Your task to perform on an android device: turn pop-ups on in chrome Image 0: 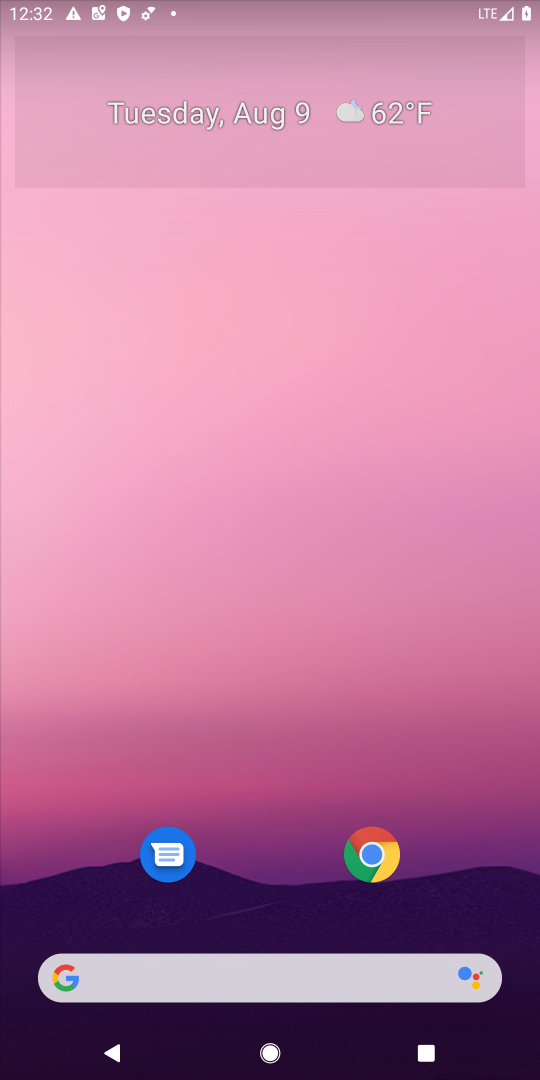
Step 0: click (381, 857)
Your task to perform on an android device: turn pop-ups on in chrome Image 1: 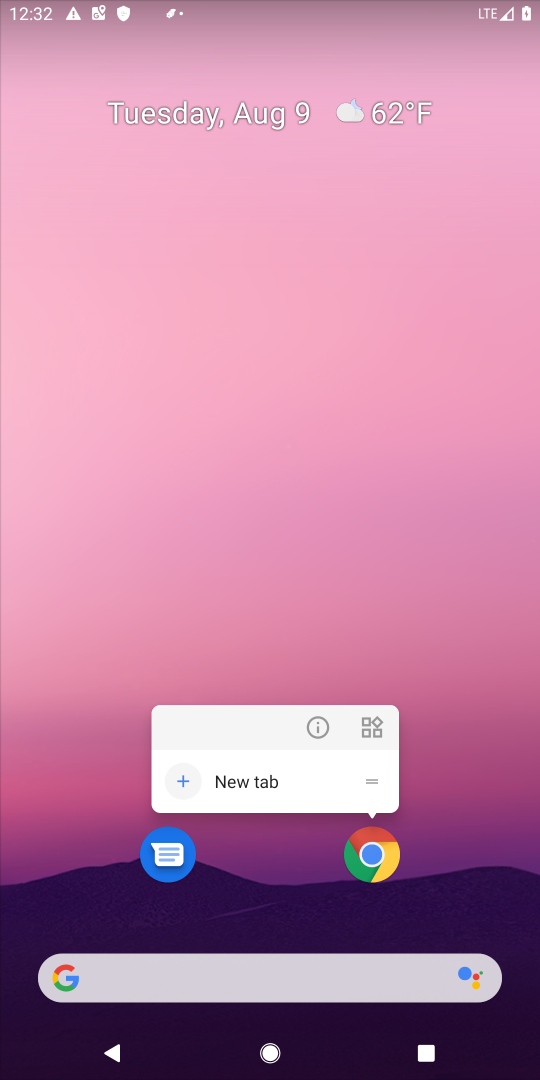
Step 1: click (393, 840)
Your task to perform on an android device: turn pop-ups on in chrome Image 2: 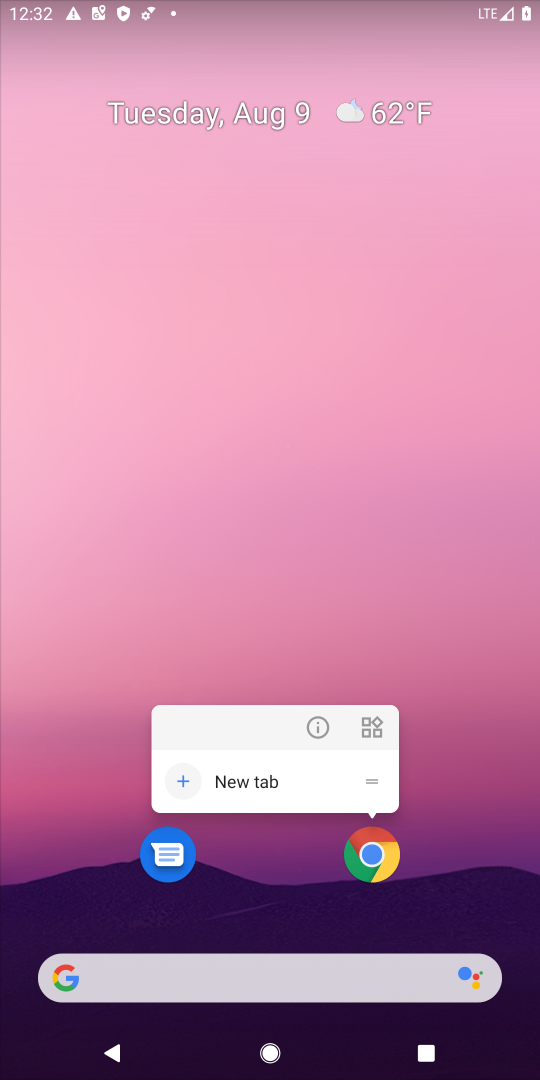
Step 2: click (371, 853)
Your task to perform on an android device: turn pop-ups on in chrome Image 3: 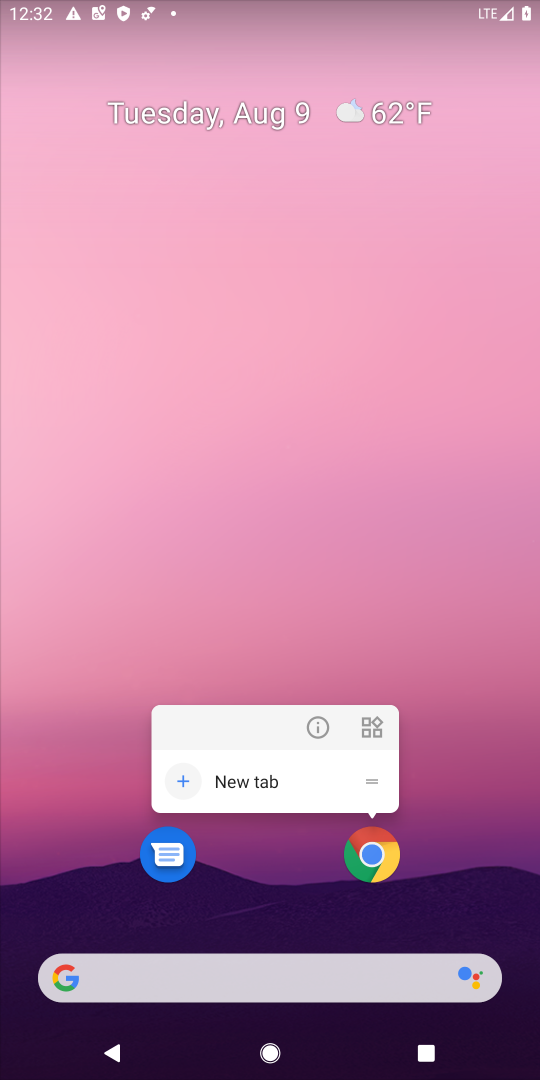
Step 3: click (371, 860)
Your task to perform on an android device: turn pop-ups on in chrome Image 4: 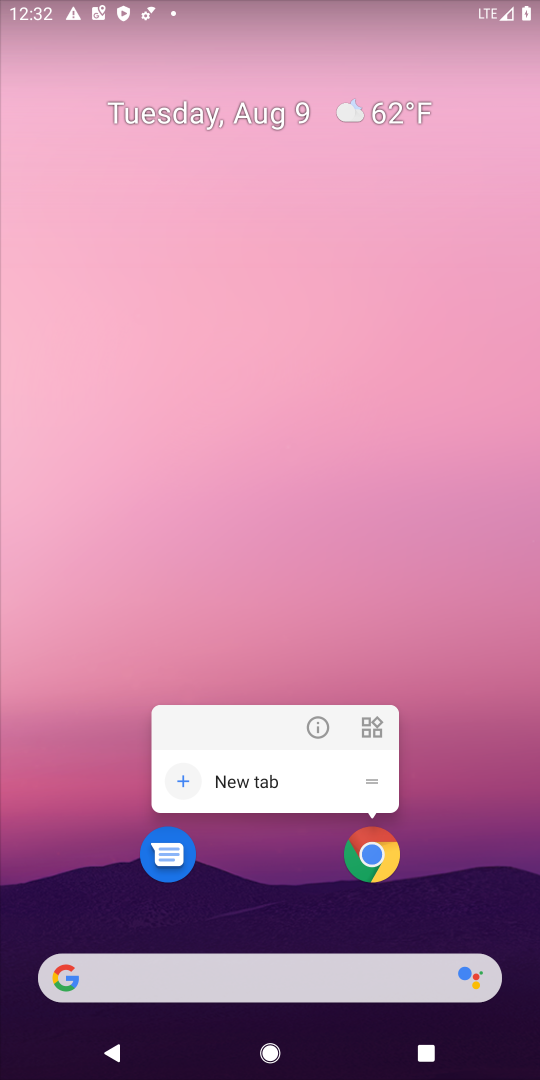
Step 4: click (371, 859)
Your task to perform on an android device: turn pop-ups on in chrome Image 5: 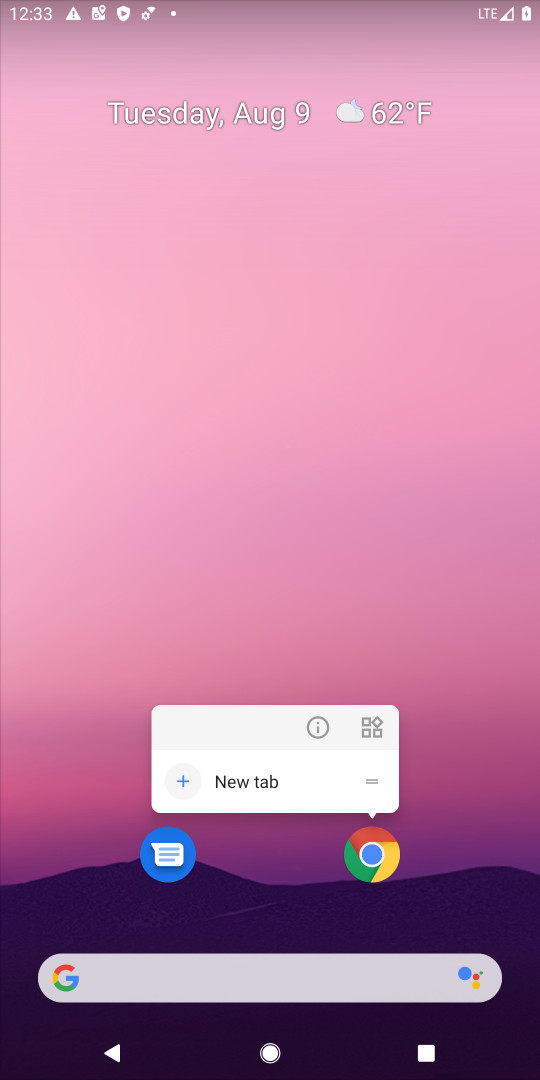
Step 5: click (372, 846)
Your task to perform on an android device: turn pop-ups on in chrome Image 6: 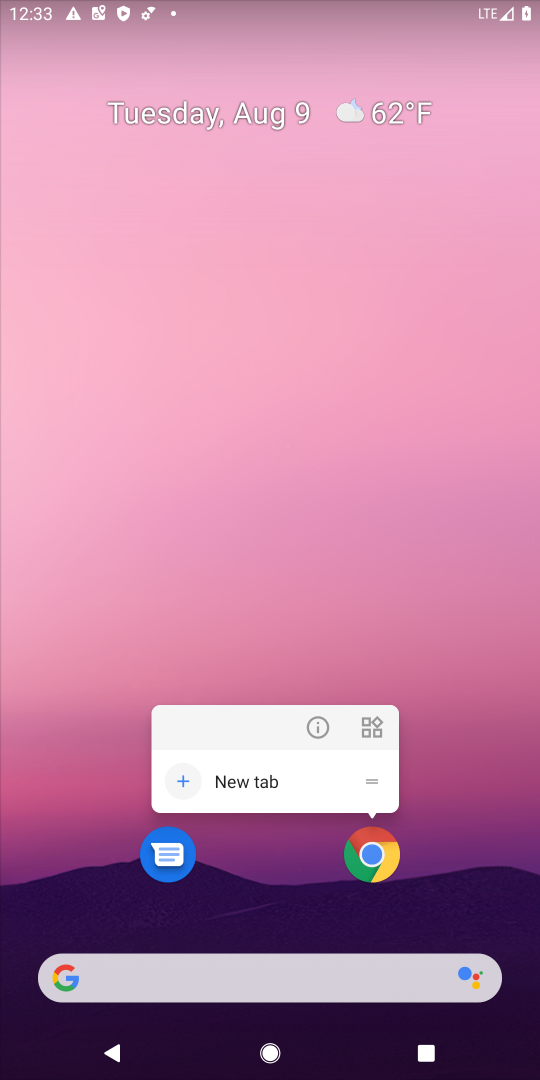
Step 6: click (371, 849)
Your task to perform on an android device: turn pop-ups on in chrome Image 7: 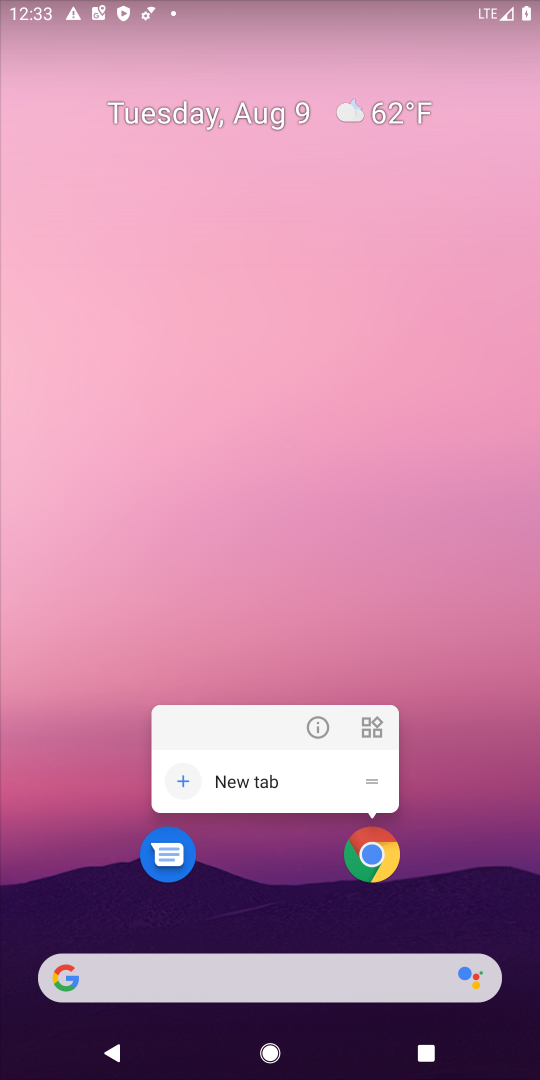
Step 7: click (369, 860)
Your task to perform on an android device: turn pop-ups on in chrome Image 8: 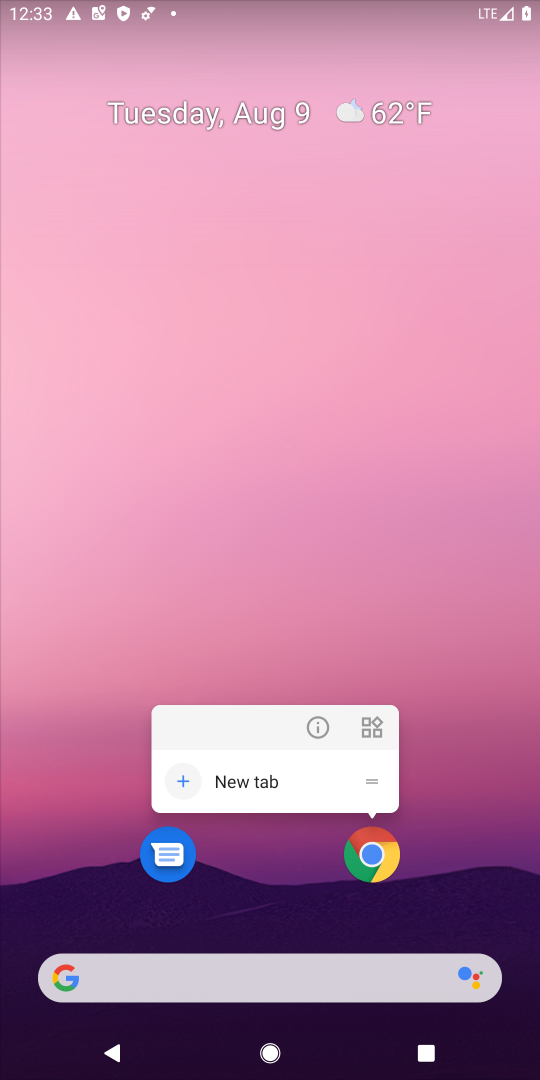
Step 8: click (376, 859)
Your task to perform on an android device: turn pop-ups on in chrome Image 9: 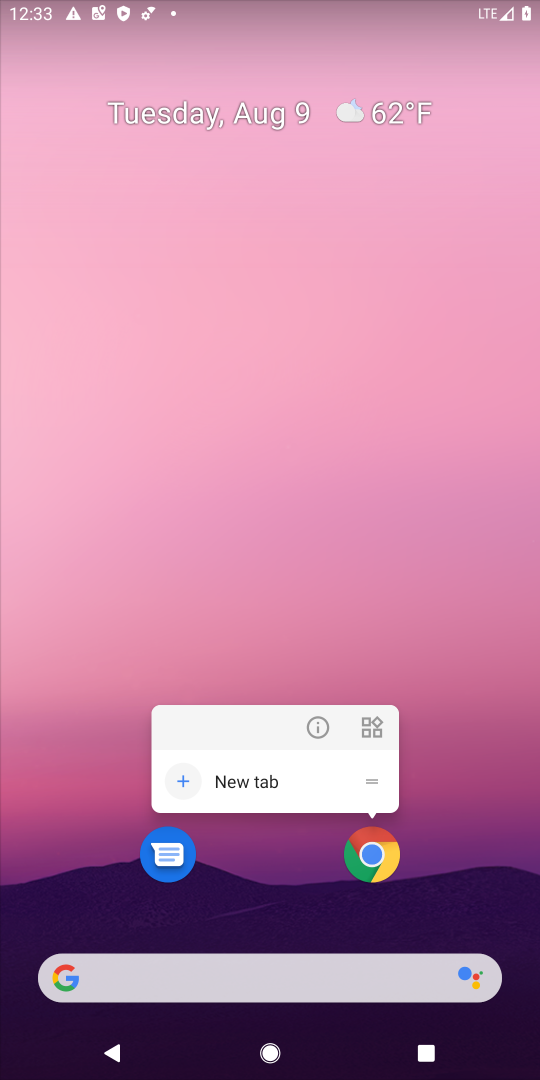
Step 9: click (393, 858)
Your task to perform on an android device: turn pop-ups on in chrome Image 10: 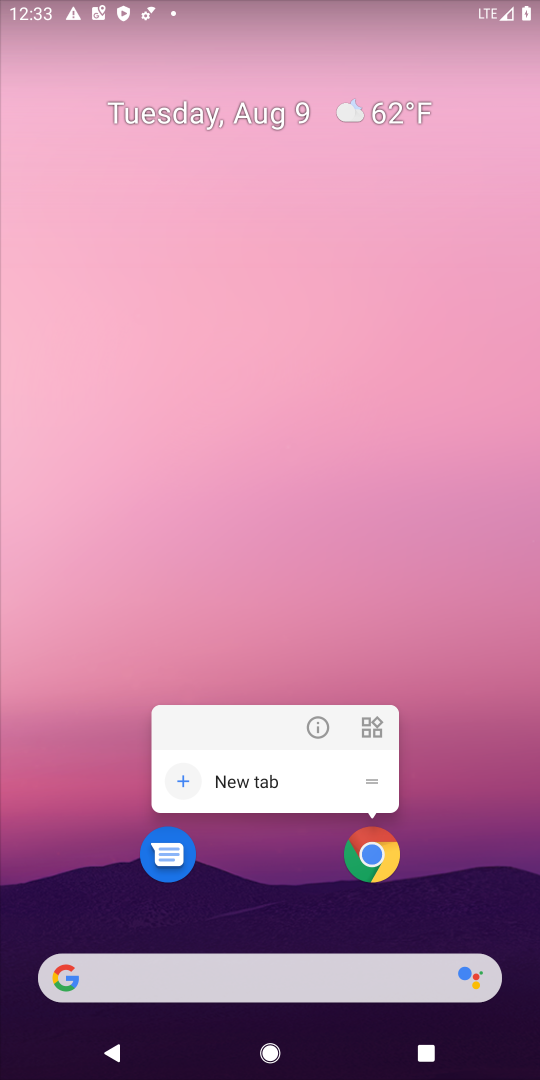
Step 10: click (368, 866)
Your task to perform on an android device: turn pop-ups on in chrome Image 11: 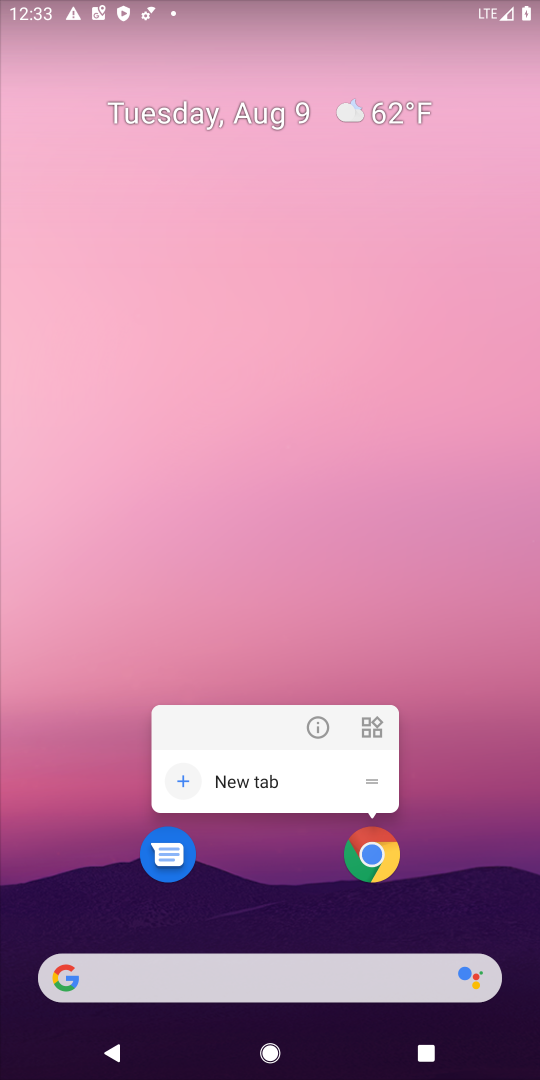
Step 11: click (375, 845)
Your task to perform on an android device: turn pop-ups on in chrome Image 12: 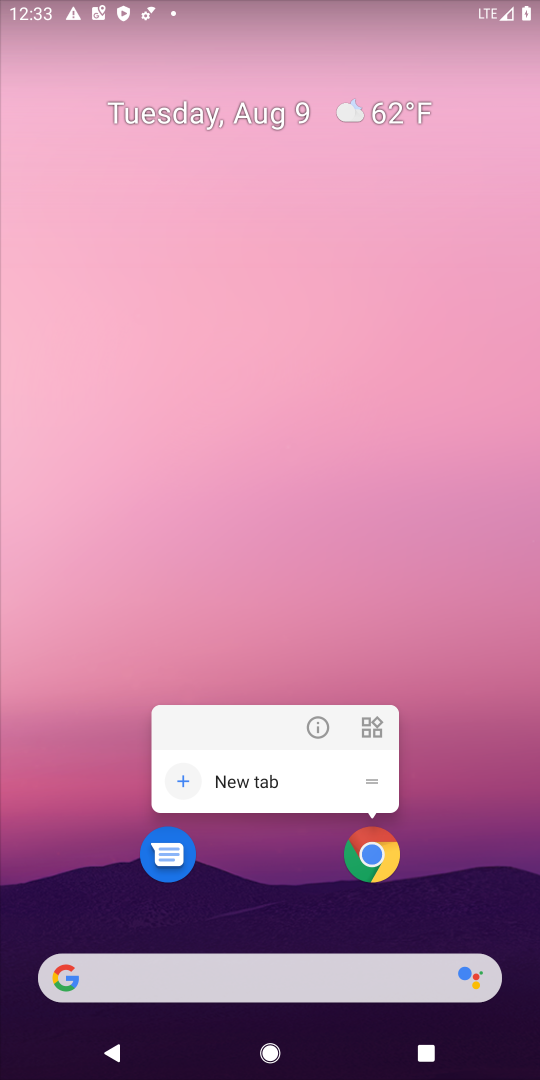
Step 12: click (376, 856)
Your task to perform on an android device: turn pop-ups on in chrome Image 13: 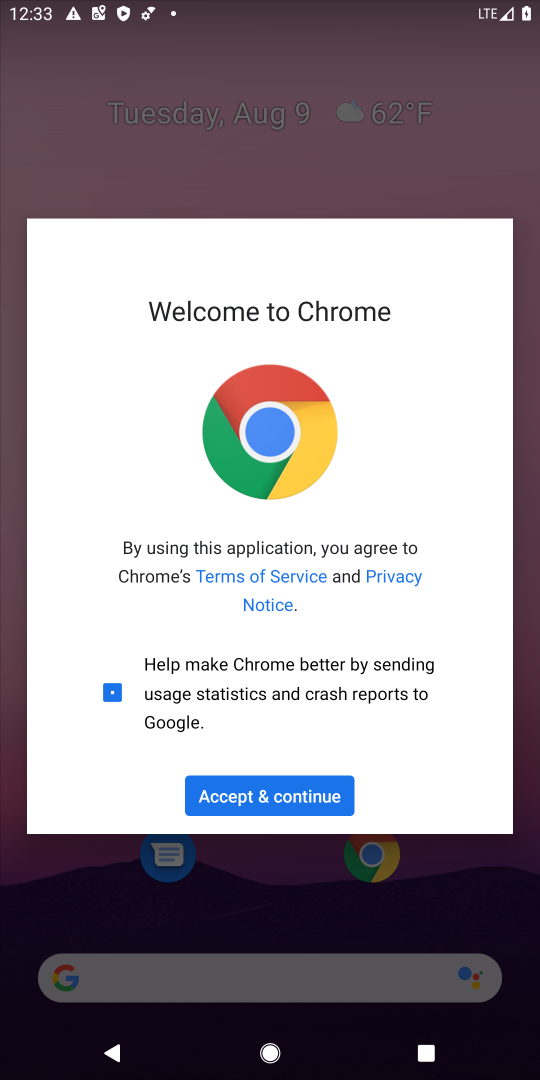
Step 13: click (328, 789)
Your task to perform on an android device: turn pop-ups on in chrome Image 14: 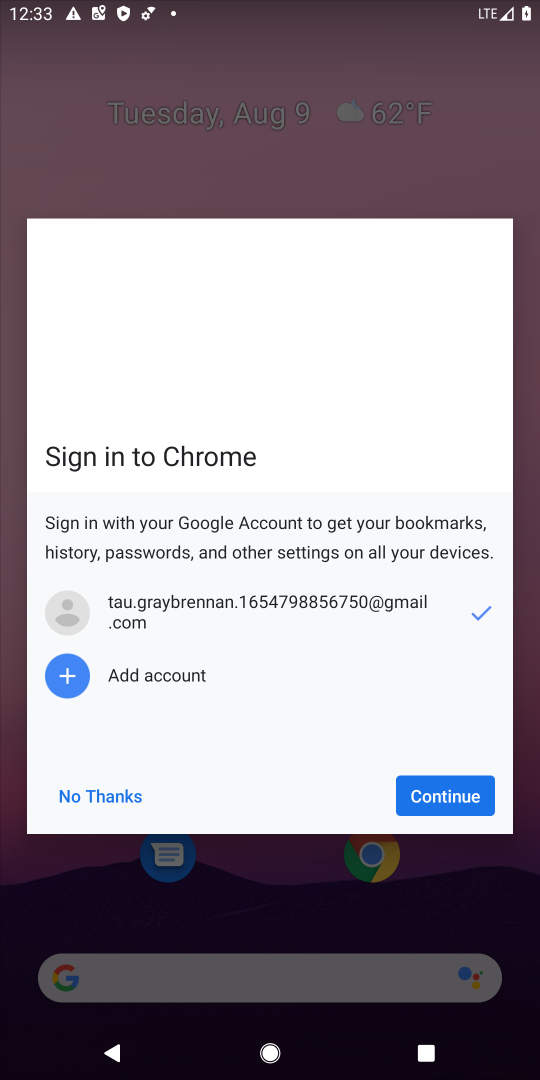
Step 14: click (424, 787)
Your task to perform on an android device: turn pop-ups on in chrome Image 15: 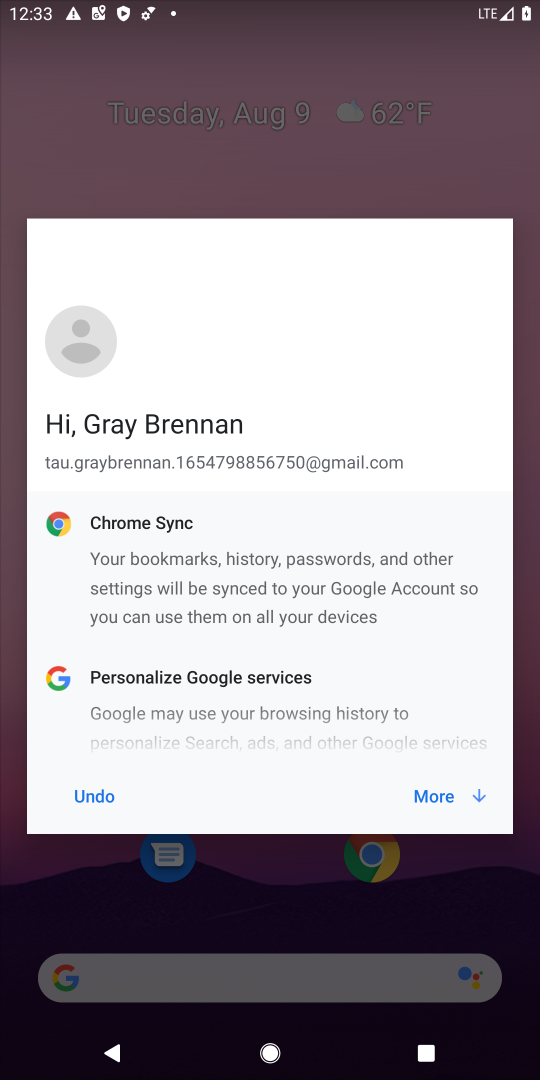
Step 15: click (444, 791)
Your task to perform on an android device: turn pop-ups on in chrome Image 16: 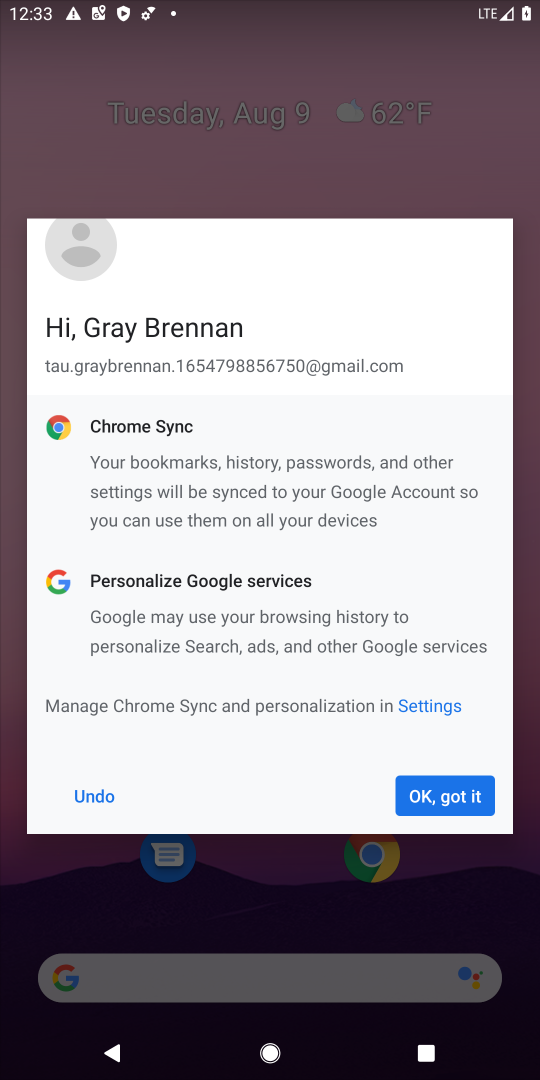
Step 16: click (444, 791)
Your task to perform on an android device: turn pop-ups on in chrome Image 17: 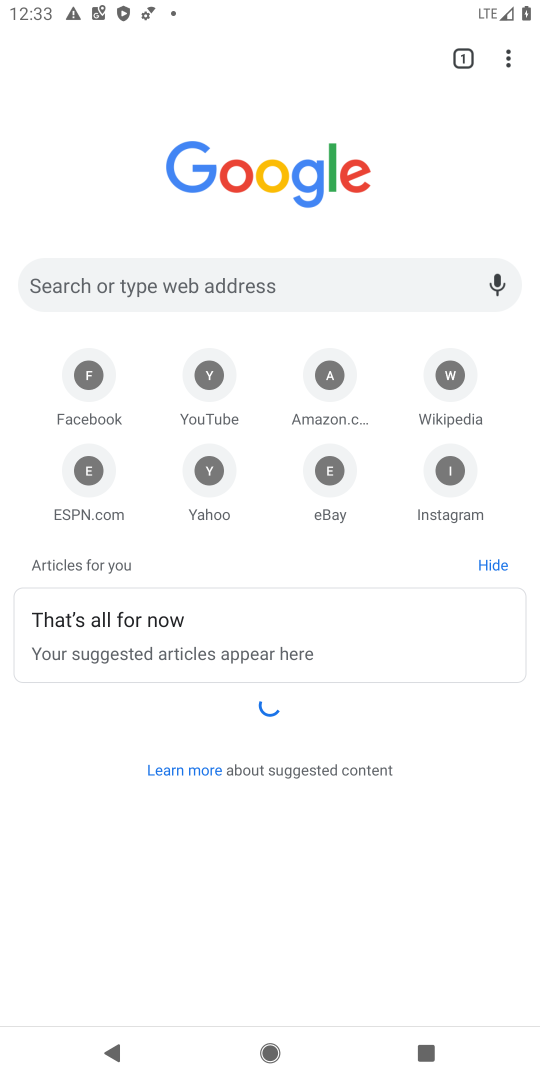
Step 17: drag from (516, 43) to (322, 493)
Your task to perform on an android device: turn pop-ups on in chrome Image 18: 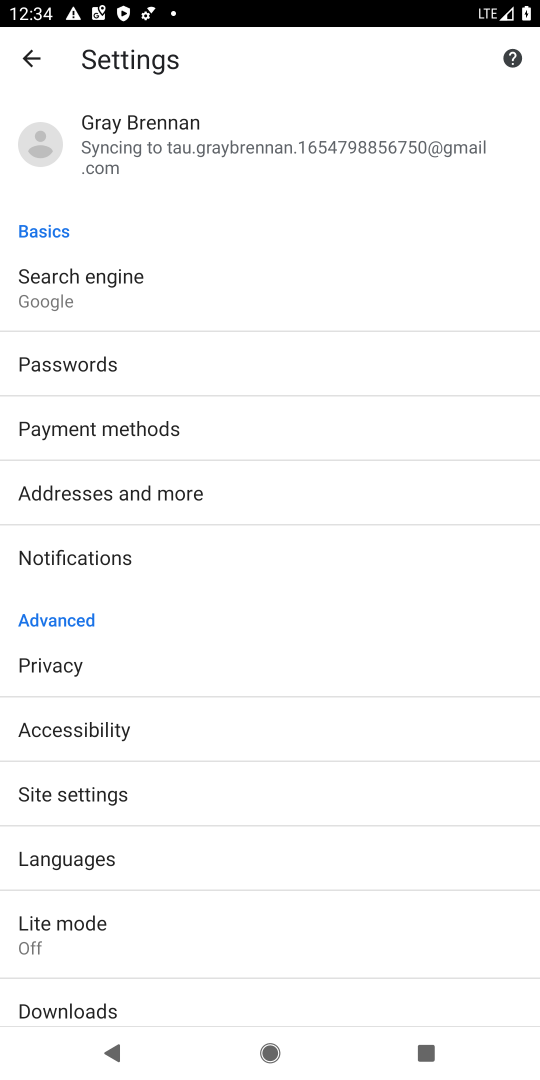
Step 18: click (72, 801)
Your task to perform on an android device: turn pop-ups on in chrome Image 19: 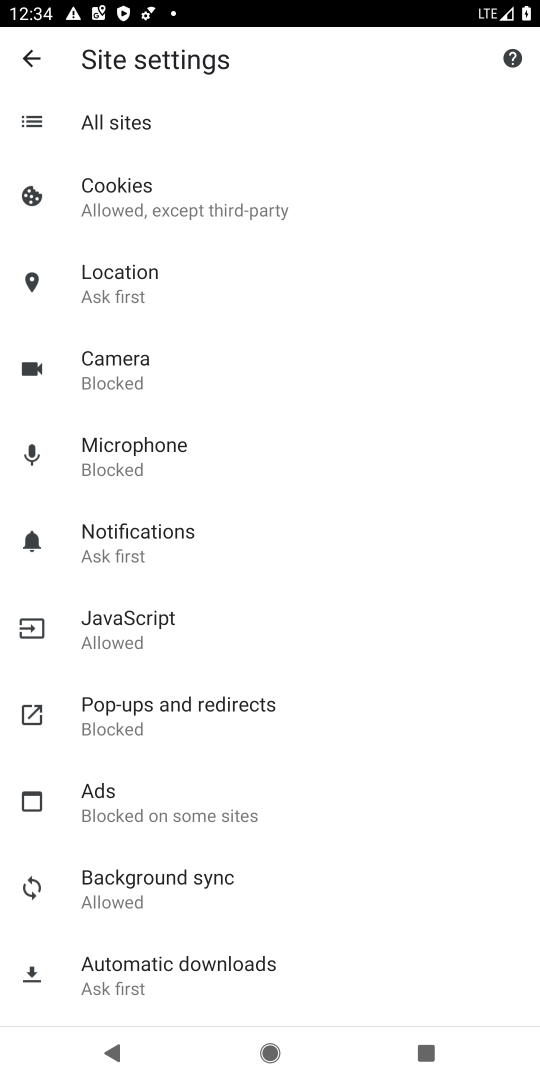
Step 19: click (140, 721)
Your task to perform on an android device: turn pop-ups on in chrome Image 20: 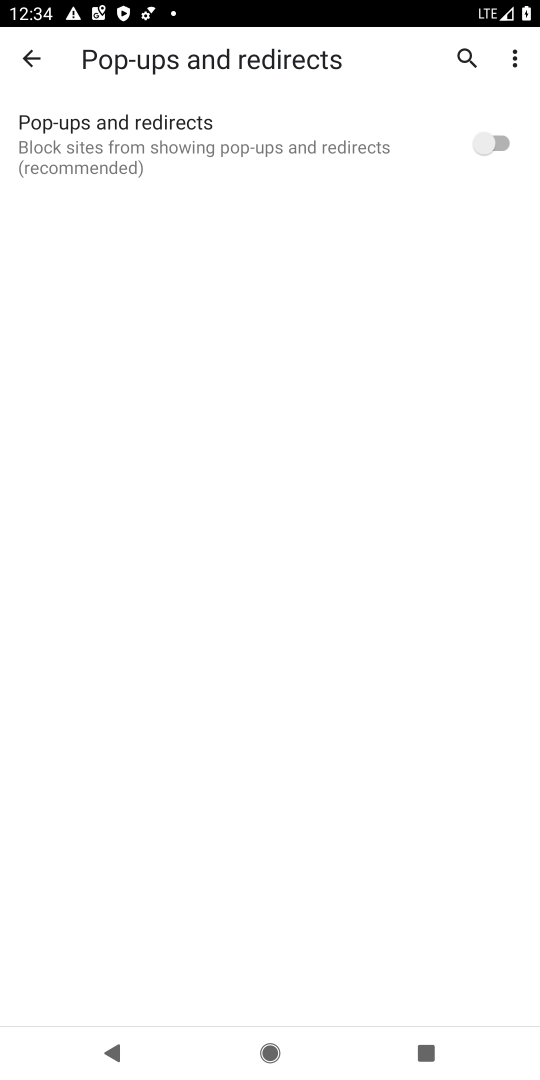
Step 20: click (483, 143)
Your task to perform on an android device: turn pop-ups on in chrome Image 21: 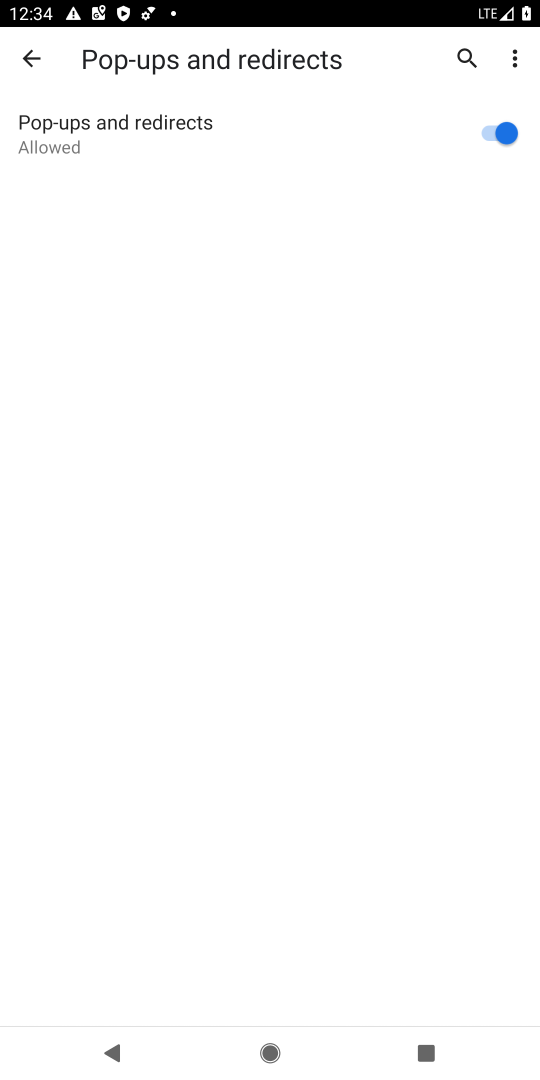
Step 21: task complete